Your task to perform on an android device: Open Google Image 0: 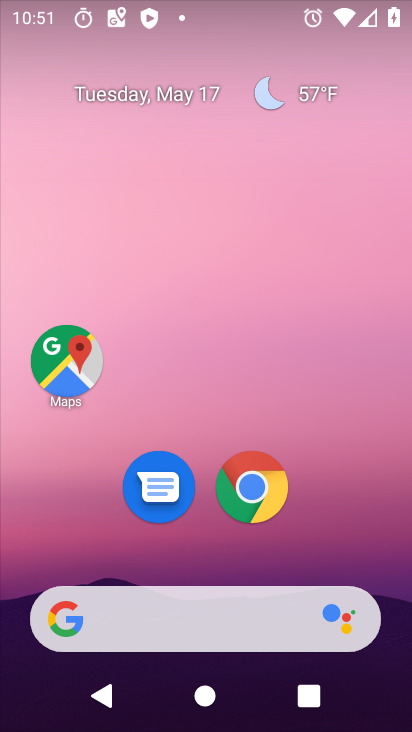
Step 0: drag from (219, 725) to (197, 91)
Your task to perform on an android device: Open Google Image 1: 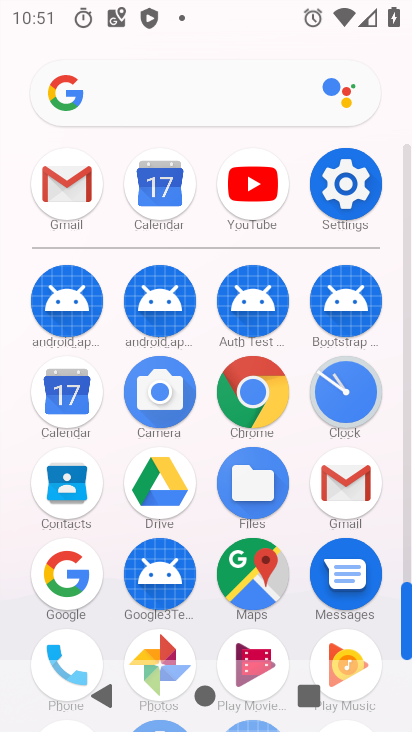
Step 1: click (73, 576)
Your task to perform on an android device: Open Google Image 2: 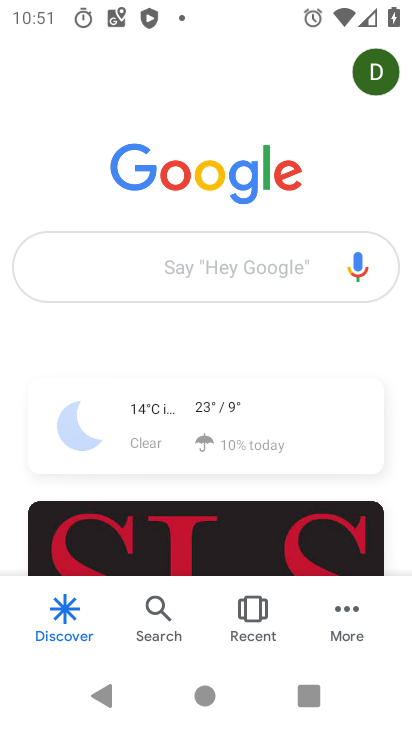
Step 2: task complete